Your task to perform on an android device: move an email to a new category in the gmail app Image 0: 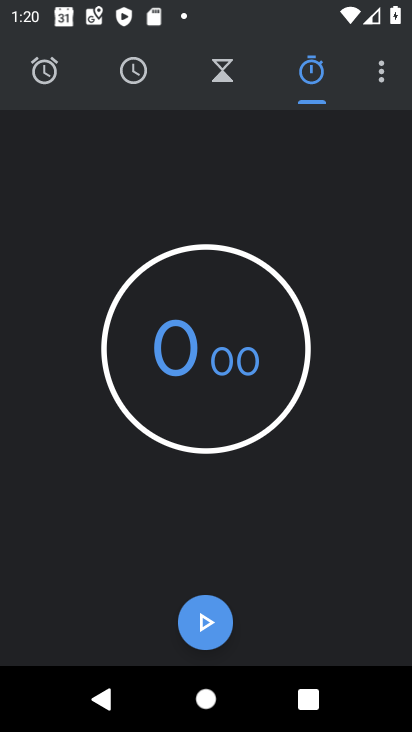
Step 0: press home button
Your task to perform on an android device: move an email to a new category in the gmail app Image 1: 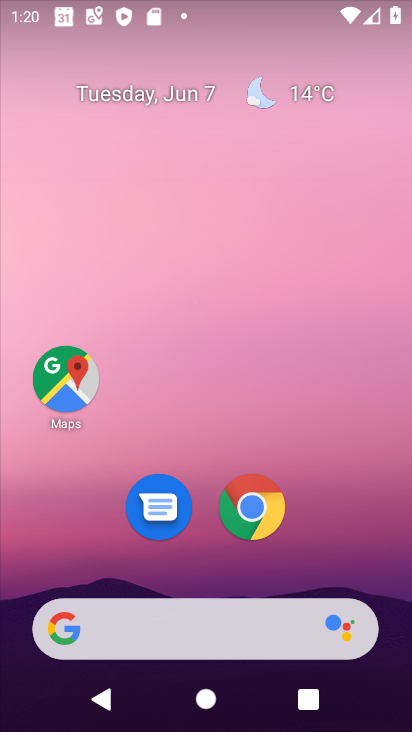
Step 1: drag from (391, 606) to (332, 75)
Your task to perform on an android device: move an email to a new category in the gmail app Image 2: 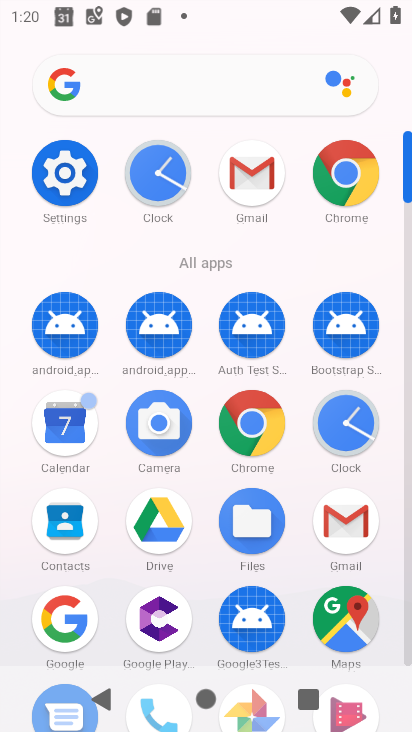
Step 2: click (340, 519)
Your task to perform on an android device: move an email to a new category in the gmail app Image 3: 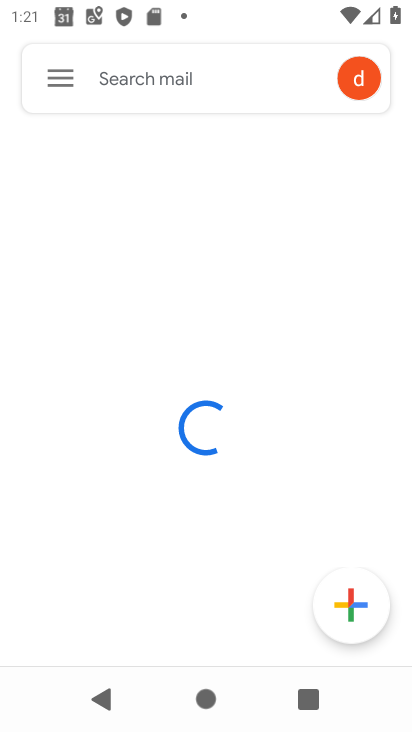
Step 3: click (59, 77)
Your task to perform on an android device: move an email to a new category in the gmail app Image 4: 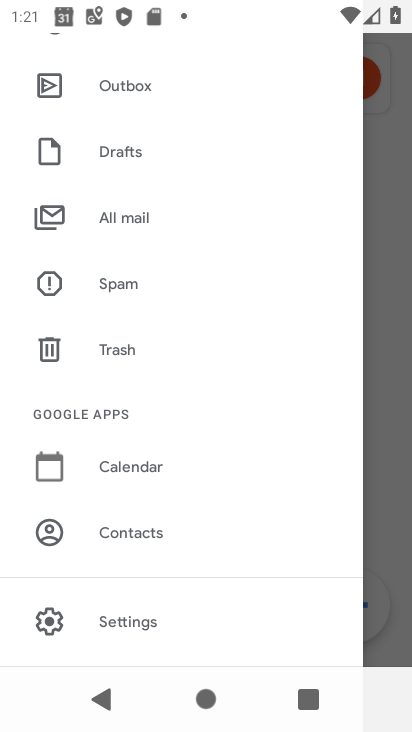
Step 4: click (133, 211)
Your task to perform on an android device: move an email to a new category in the gmail app Image 5: 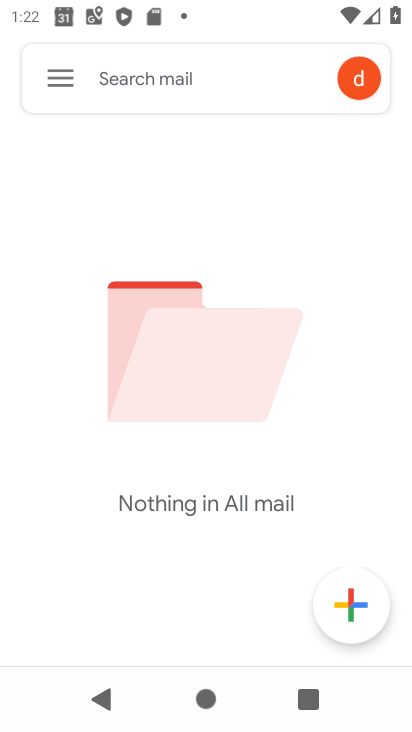
Step 5: task complete